Your task to perform on an android device: turn off notifications settings in the gmail app Image 0: 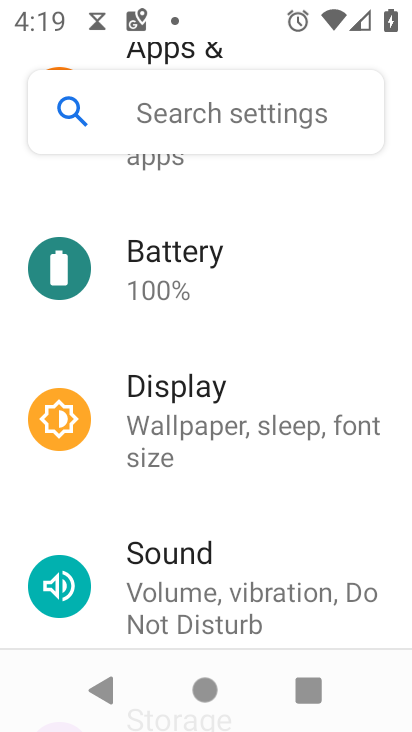
Step 0: press home button
Your task to perform on an android device: turn off notifications settings in the gmail app Image 1: 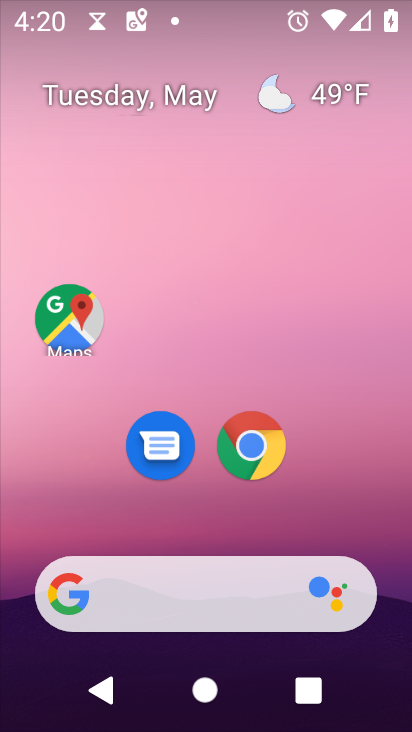
Step 1: drag from (277, 607) to (278, 31)
Your task to perform on an android device: turn off notifications settings in the gmail app Image 2: 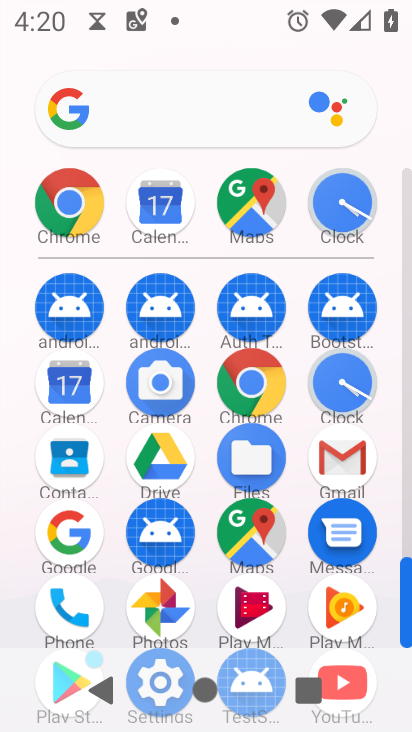
Step 2: click (333, 472)
Your task to perform on an android device: turn off notifications settings in the gmail app Image 3: 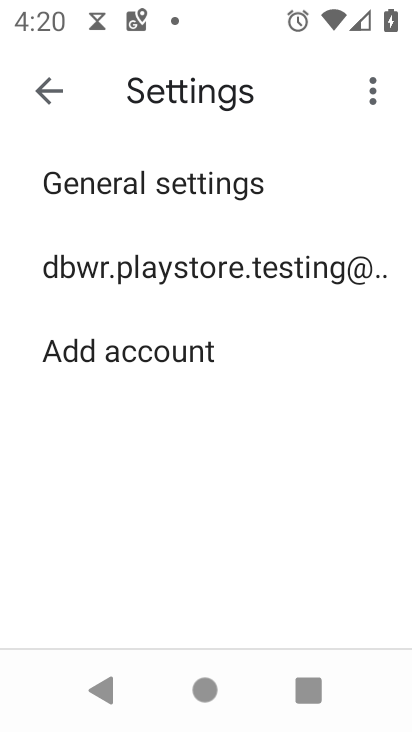
Step 3: click (283, 264)
Your task to perform on an android device: turn off notifications settings in the gmail app Image 4: 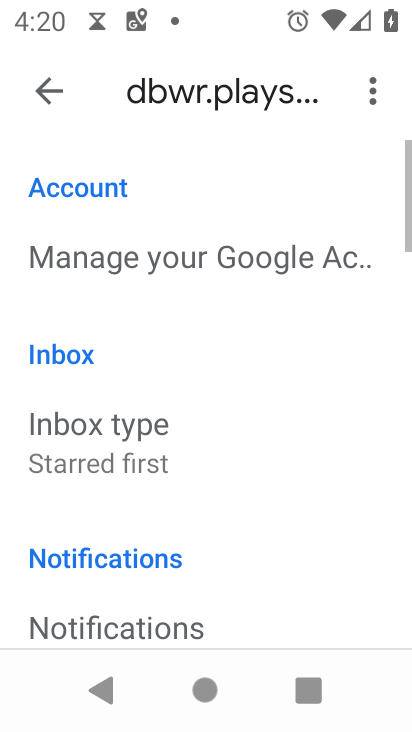
Step 4: drag from (289, 599) to (284, 114)
Your task to perform on an android device: turn off notifications settings in the gmail app Image 5: 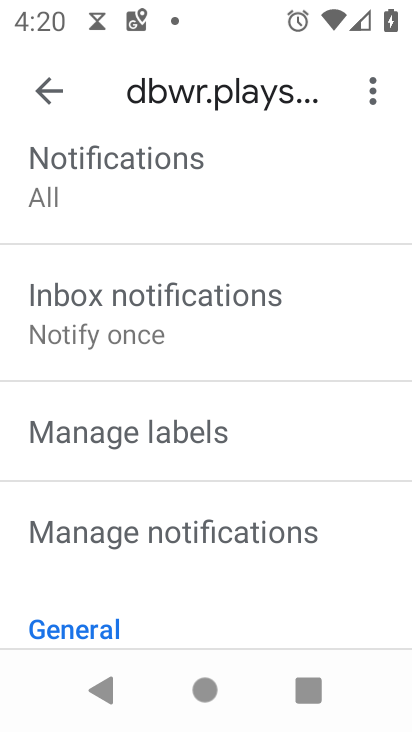
Step 5: drag from (220, 627) to (198, 155)
Your task to perform on an android device: turn off notifications settings in the gmail app Image 6: 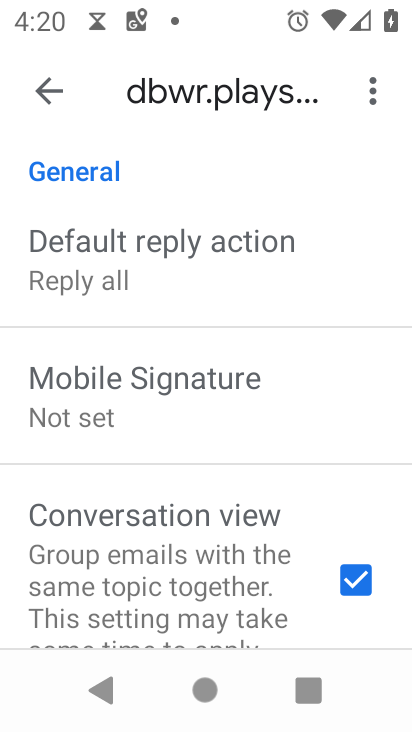
Step 6: drag from (171, 158) to (203, 631)
Your task to perform on an android device: turn off notifications settings in the gmail app Image 7: 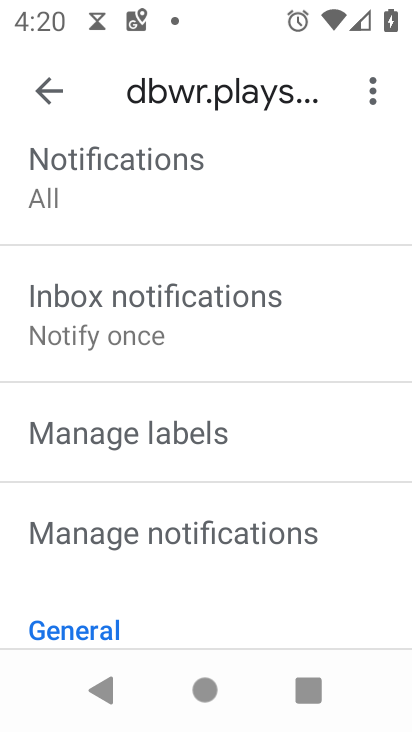
Step 7: click (167, 528)
Your task to perform on an android device: turn off notifications settings in the gmail app Image 8: 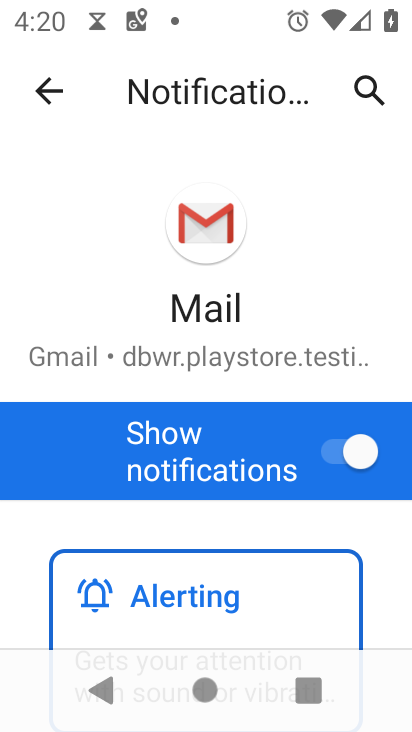
Step 8: click (337, 450)
Your task to perform on an android device: turn off notifications settings in the gmail app Image 9: 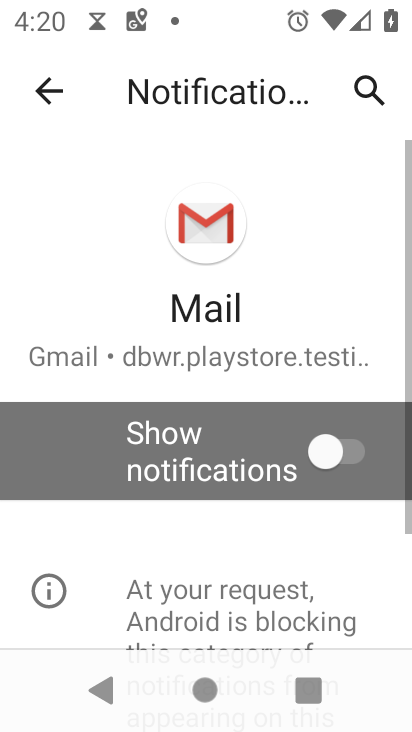
Step 9: task complete